Your task to perform on an android device: Go to ESPN.com Image 0: 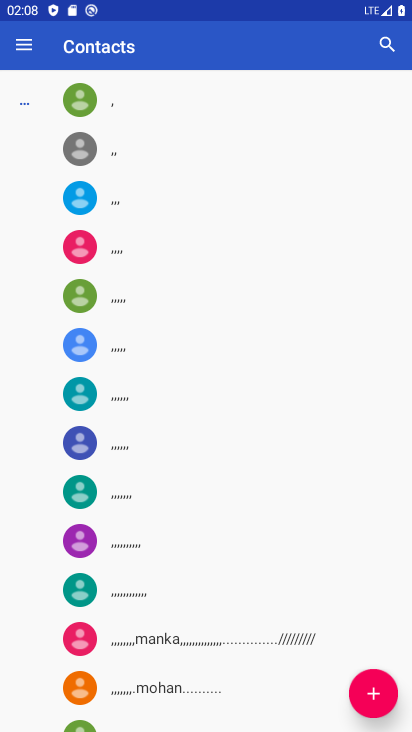
Step 0: press home button
Your task to perform on an android device: Go to ESPN.com Image 1: 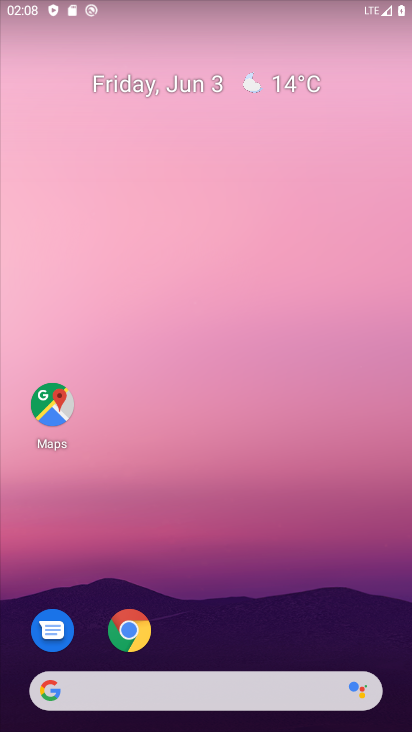
Step 1: click (125, 629)
Your task to perform on an android device: Go to ESPN.com Image 2: 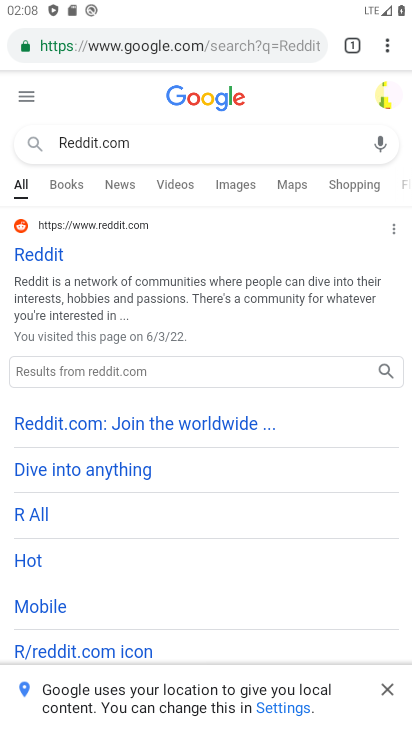
Step 2: click (321, 40)
Your task to perform on an android device: Go to ESPN.com Image 3: 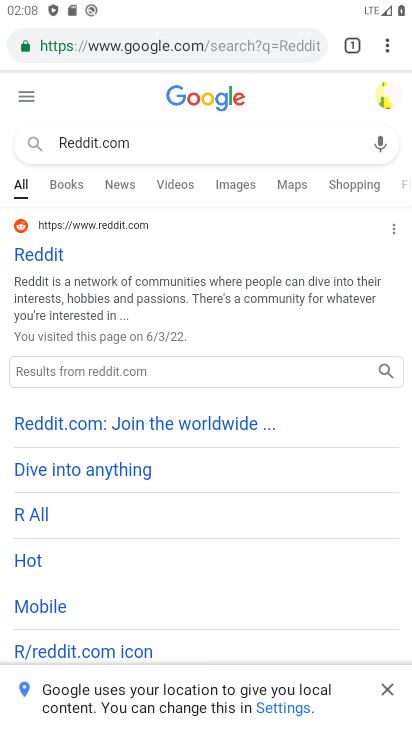
Step 3: click (316, 43)
Your task to perform on an android device: Go to ESPN.com Image 4: 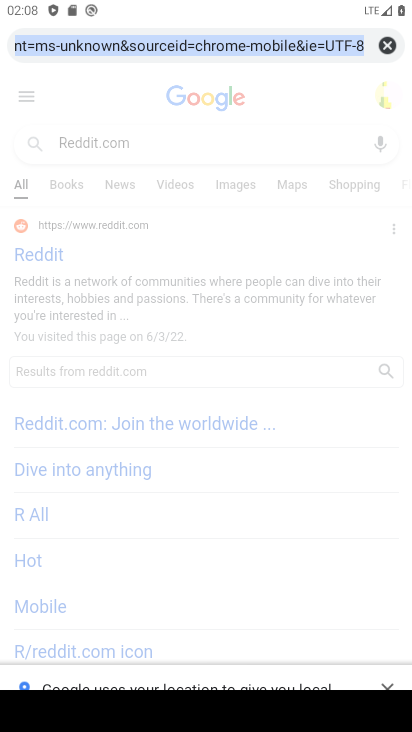
Step 4: click (387, 43)
Your task to perform on an android device: Go to ESPN.com Image 5: 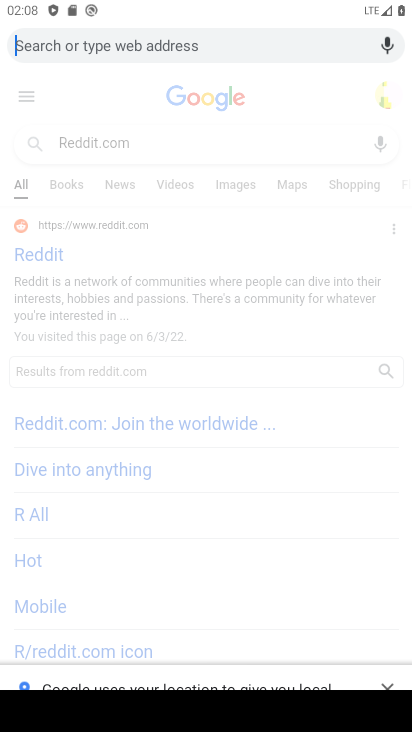
Step 5: type "ESPN.com"
Your task to perform on an android device: Go to ESPN.com Image 6: 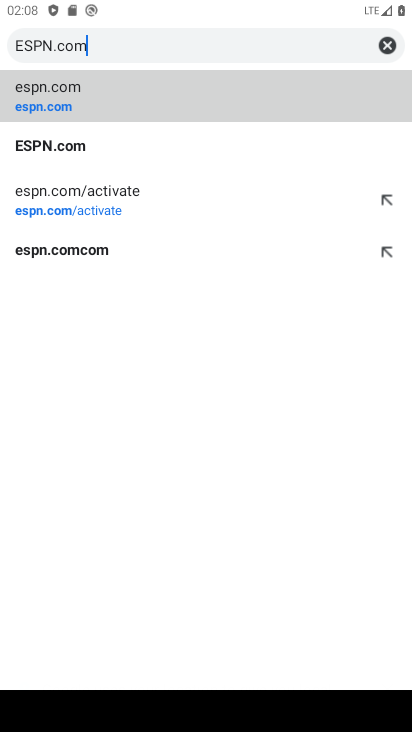
Step 6: click (79, 149)
Your task to perform on an android device: Go to ESPN.com Image 7: 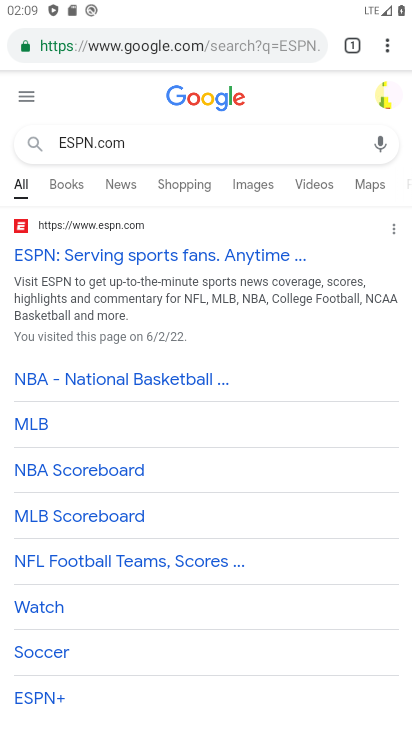
Step 7: task complete